Your task to perform on an android device: turn on airplane mode Image 0: 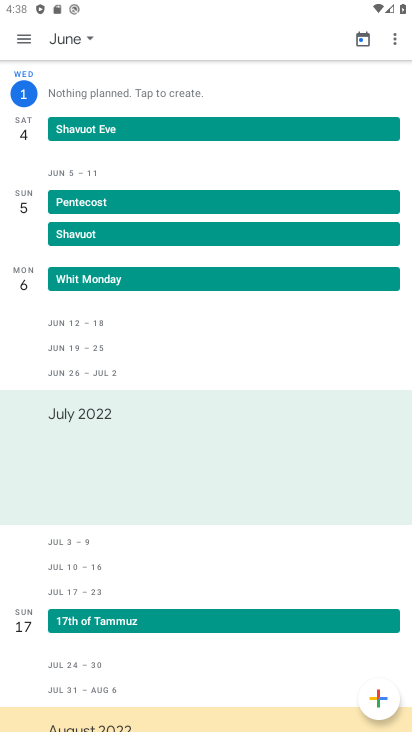
Step 0: drag from (271, 6) to (227, 577)
Your task to perform on an android device: turn on airplane mode Image 1: 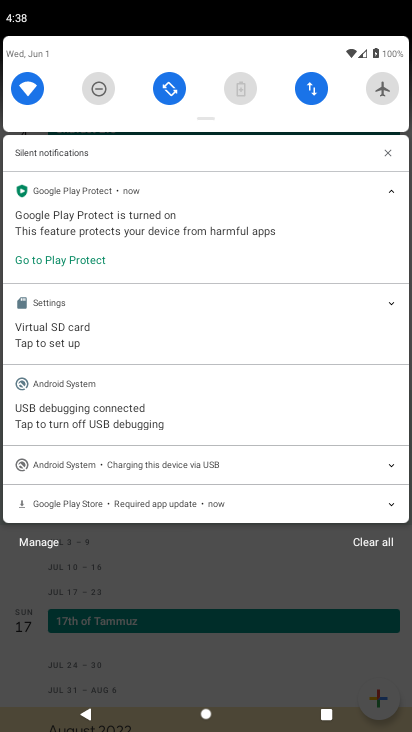
Step 1: task complete